Your task to perform on an android device: Do I have any events tomorrow? Image 0: 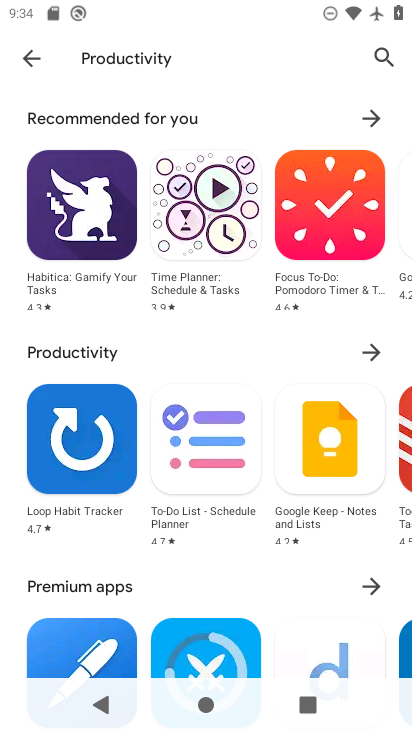
Step 0: press home button
Your task to perform on an android device: Do I have any events tomorrow? Image 1: 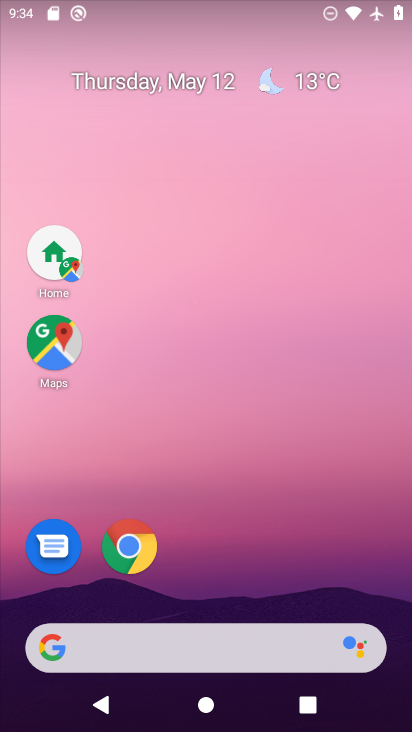
Step 1: drag from (150, 650) to (334, 55)
Your task to perform on an android device: Do I have any events tomorrow? Image 2: 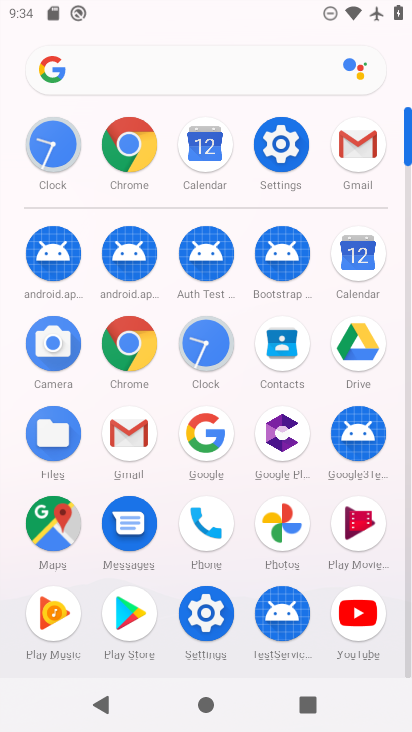
Step 2: click (360, 257)
Your task to perform on an android device: Do I have any events tomorrow? Image 3: 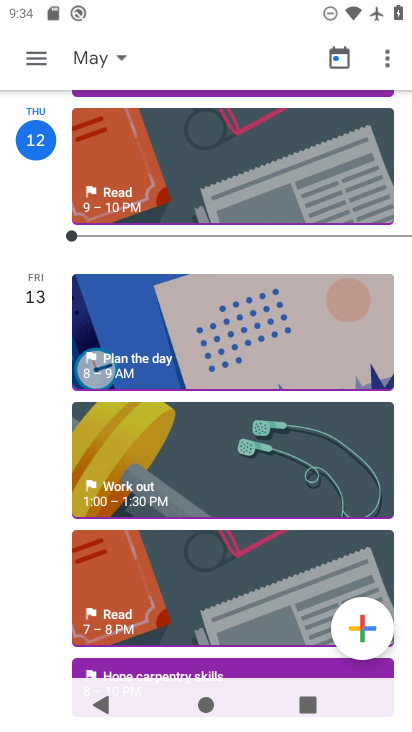
Step 3: click (58, 63)
Your task to perform on an android device: Do I have any events tomorrow? Image 4: 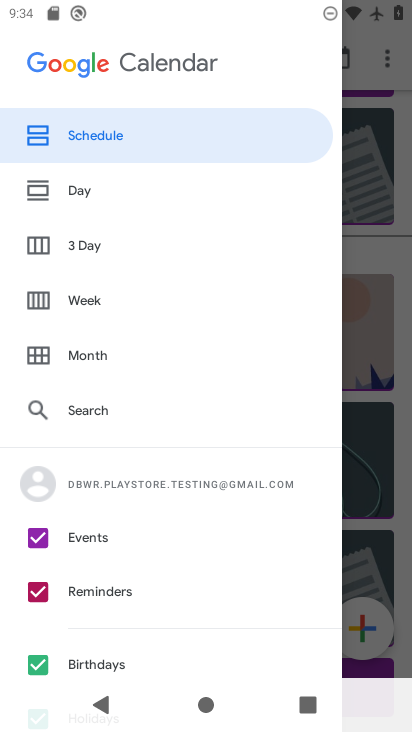
Step 4: click (367, 82)
Your task to perform on an android device: Do I have any events tomorrow? Image 5: 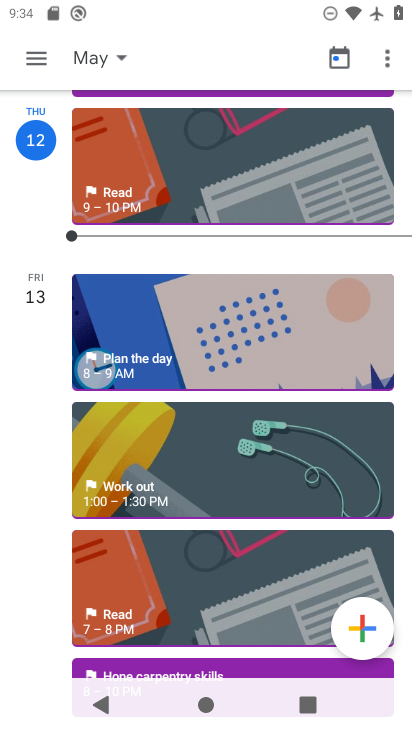
Step 5: click (96, 55)
Your task to perform on an android device: Do I have any events tomorrow? Image 6: 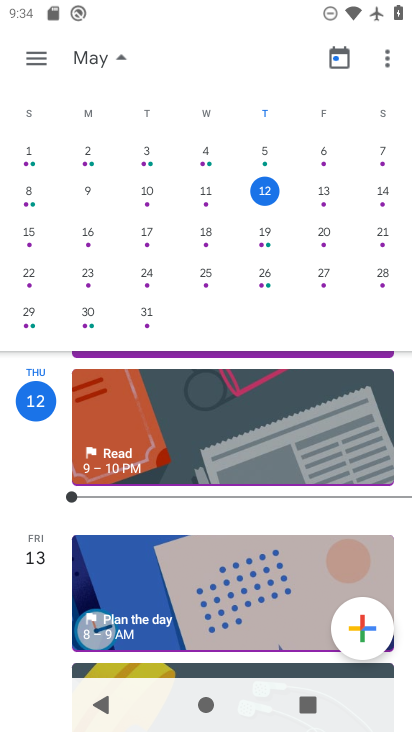
Step 6: click (329, 190)
Your task to perform on an android device: Do I have any events tomorrow? Image 7: 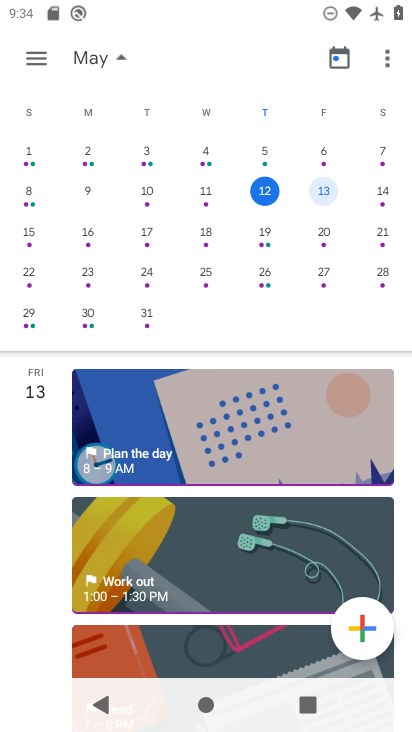
Step 7: click (39, 52)
Your task to perform on an android device: Do I have any events tomorrow? Image 8: 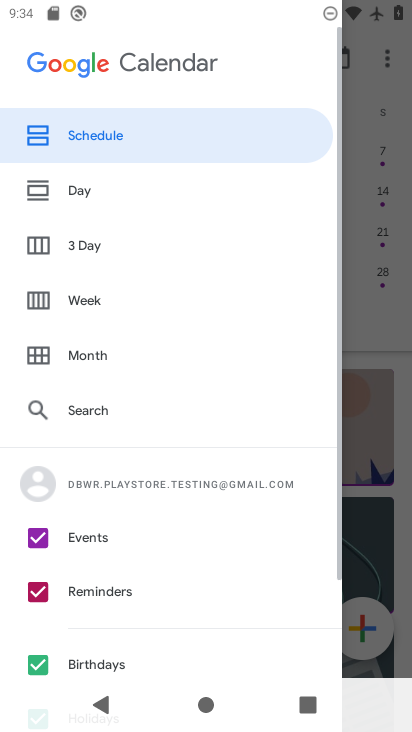
Step 8: click (111, 135)
Your task to perform on an android device: Do I have any events tomorrow? Image 9: 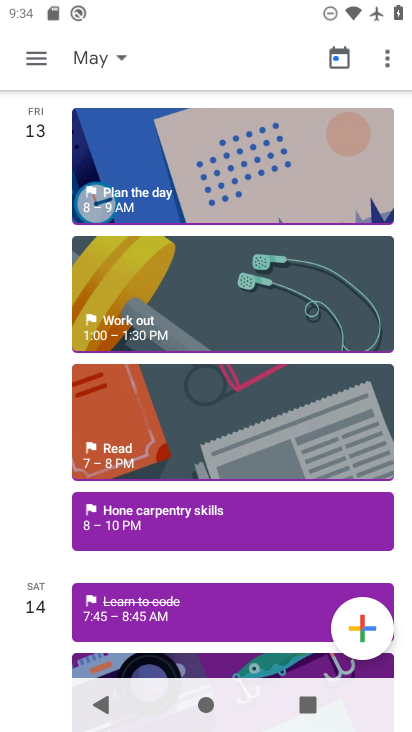
Step 9: click (139, 518)
Your task to perform on an android device: Do I have any events tomorrow? Image 10: 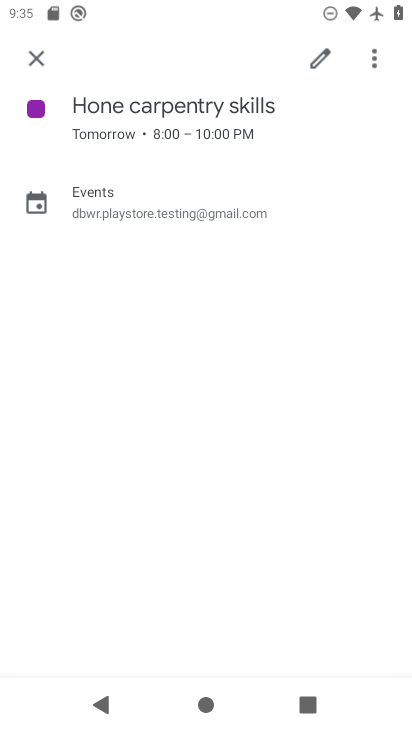
Step 10: task complete